Your task to perform on an android device: install app "LinkedIn" Image 0: 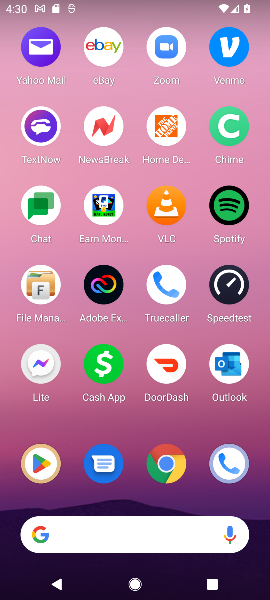
Step 0: press home button
Your task to perform on an android device: install app "LinkedIn" Image 1: 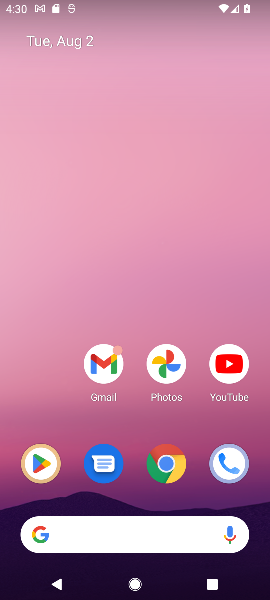
Step 1: click (34, 464)
Your task to perform on an android device: install app "LinkedIn" Image 2: 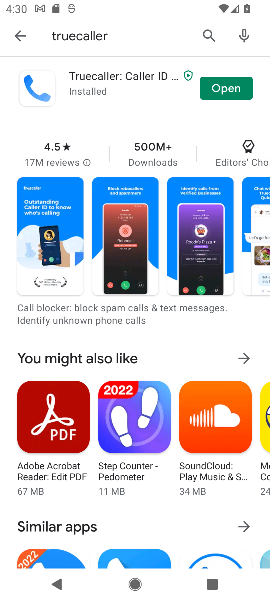
Step 2: click (207, 36)
Your task to perform on an android device: install app "LinkedIn" Image 3: 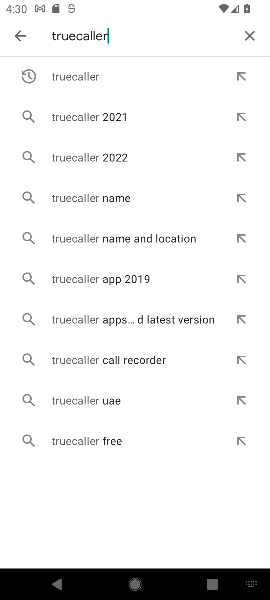
Step 3: click (245, 31)
Your task to perform on an android device: install app "LinkedIn" Image 4: 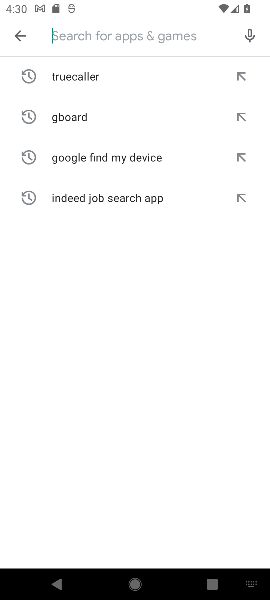
Step 4: type "LinkedIn"
Your task to perform on an android device: install app "LinkedIn" Image 5: 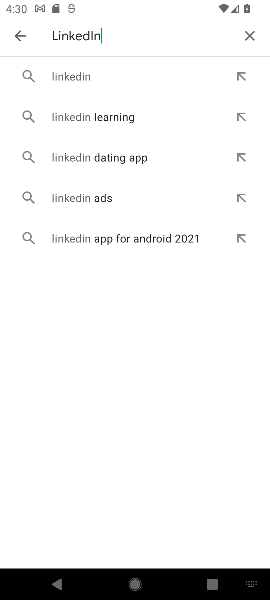
Step 5: click (77, 73)
Your task to perform on an android device: install app "LinkedIn" Image 6: 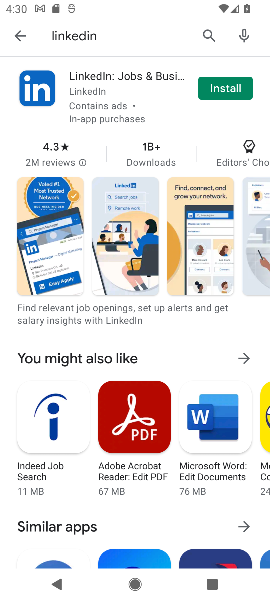
Step 6: click (224, 87)
Your task to perform on an android device: install app "LinkedIn" Image 7: 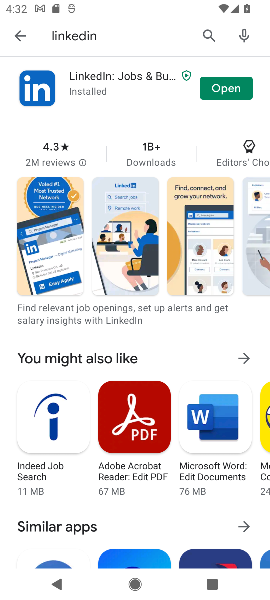
Step 7: task complete